Your task to perform on an android device: Turn off the flashlight Image 0: 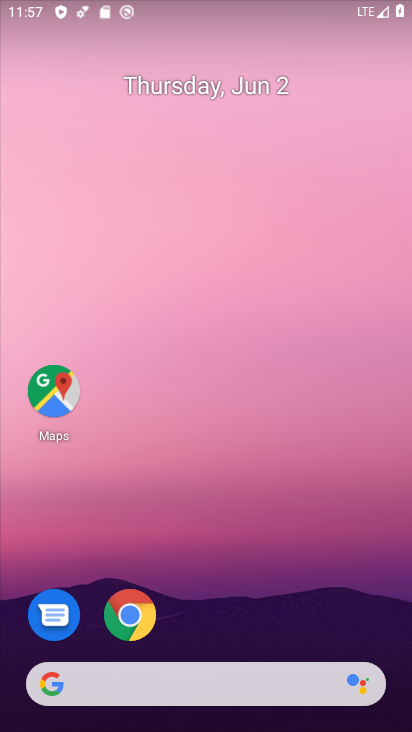
Step 0: drag from (233, 10) to (216, 617)
Your task to perform on an android device: Turn off the flashlight Image 1: 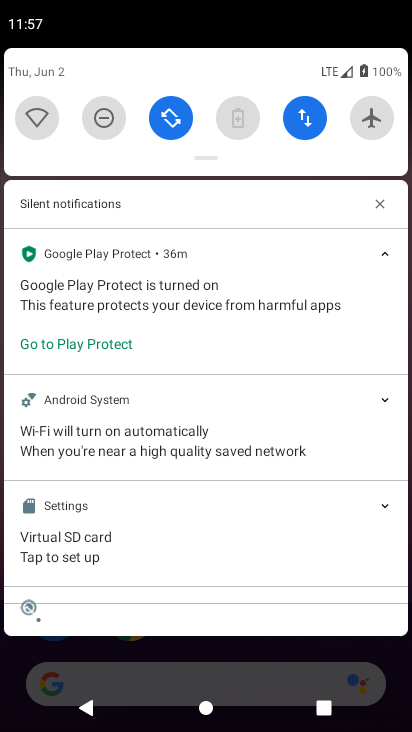
Step 1: task complete